Your task to perform on an android device: Toggle the flashlight Image 0: 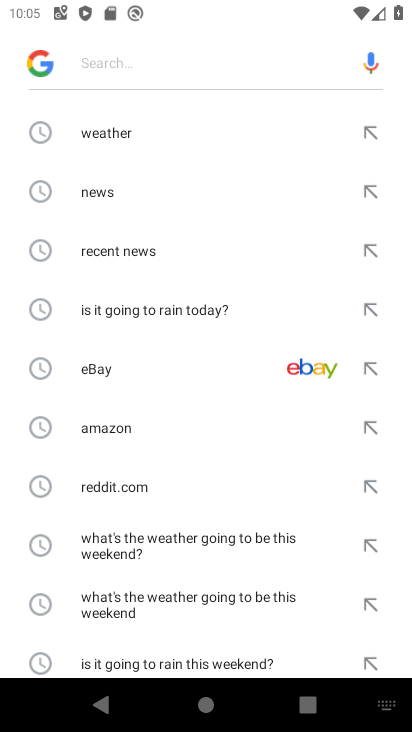
Step 0: press back button
Your task to perform on an android device: Toggle the flashlight Image 1: 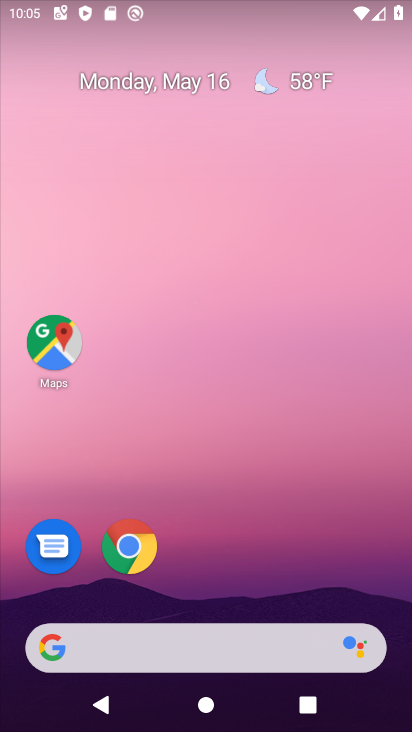
Step 1: drag from (259, 592) to (194, 305)
Your task to perform on an android device: Toggle the flashlight Image 2: 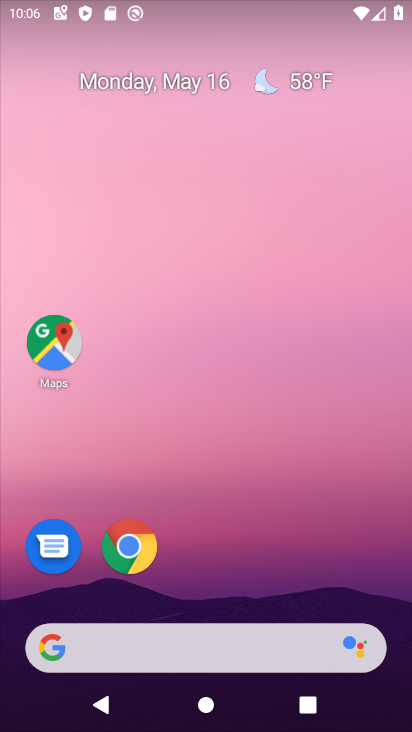
Step 2: drag from (238, 545) to (267, 117)
Your task to perform on an android device: Toggle the flashlight Image 3: 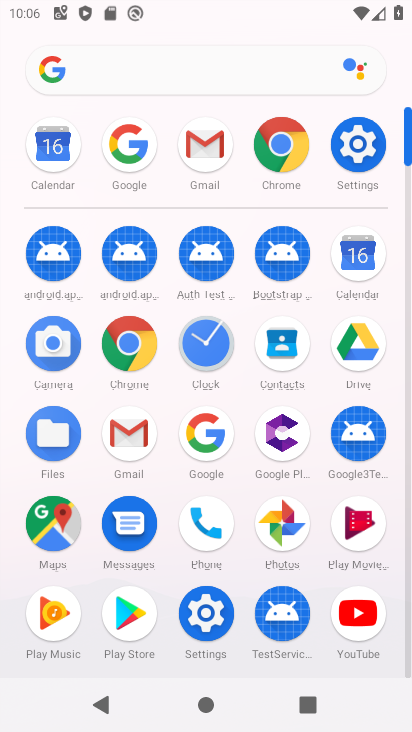
Step 3: click (358, 143)
Your task to perform on an android device: Toggle the flashlight Image 4: 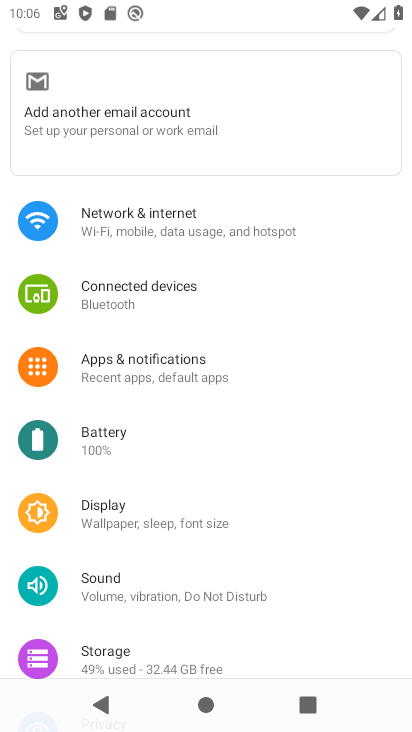
Step 4: click (147, 516)
Your task to perform on an android device: Toggle the flashlight Image 5: 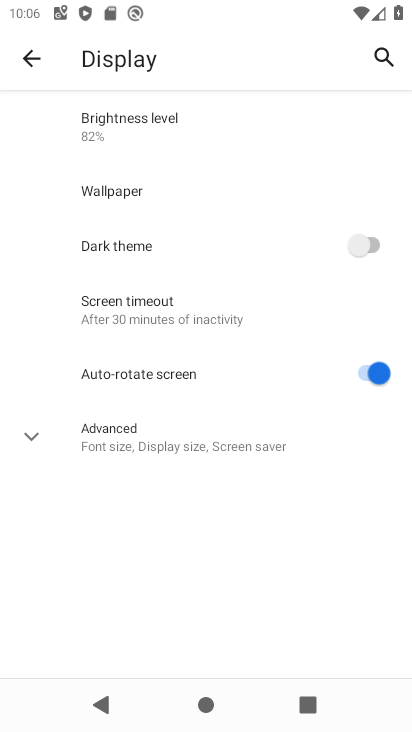
Step 5: click (167, 449)
Your task to perform on an android device: Toggle the flashlight Image 6: 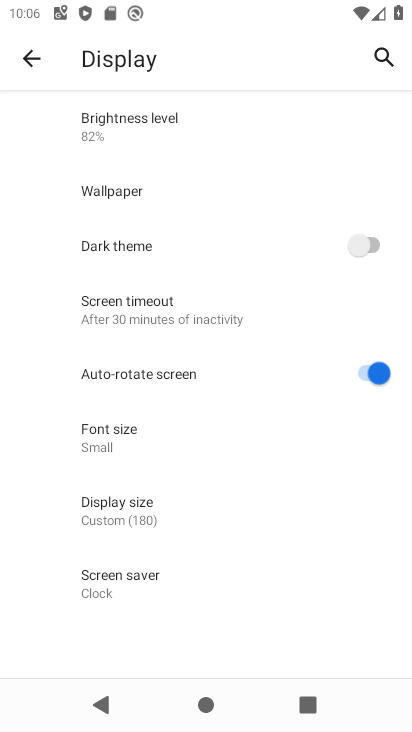
Step 6: drag from (163, 506) to (170, 393)
Your task to perform on an android device: Toggle the flashlight Image 7: 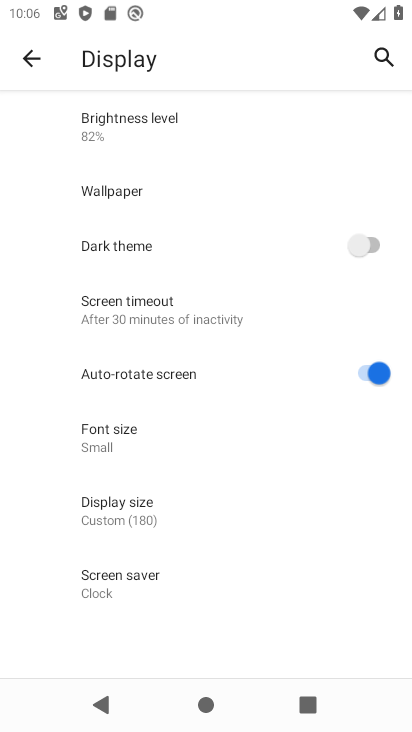
Step 7: press back button
Your task to perform on an android device: Toggle the flashlight Image 8: 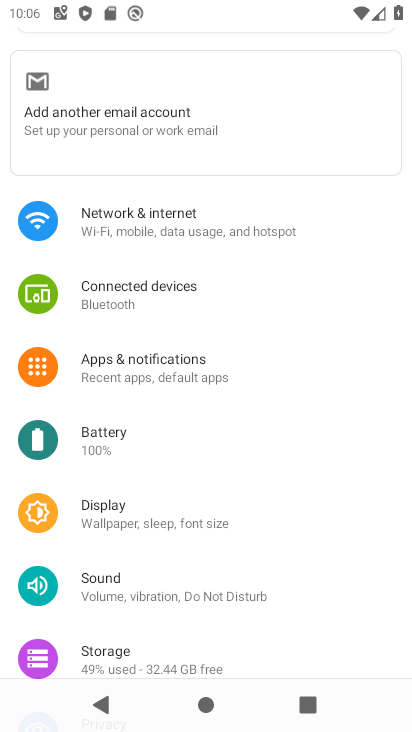
Step 8: drag from (174, 471) to (241, 396)
Your task to perform on an android device: Toggle the flashlight Image 9: 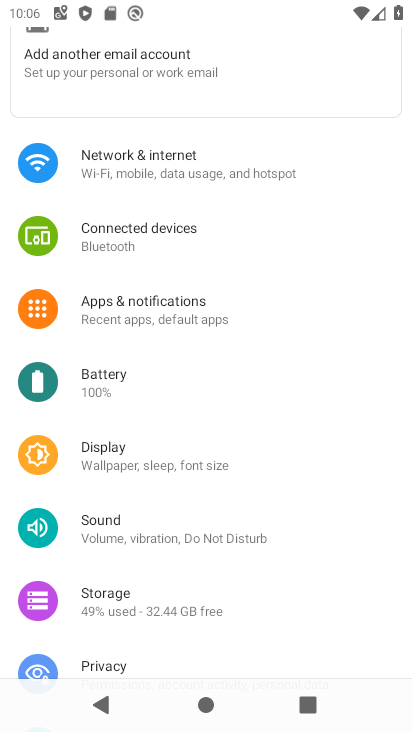
Step 9: click (185, 535)
Your task to perform on an android device: Toggle the flashlight Image 10: 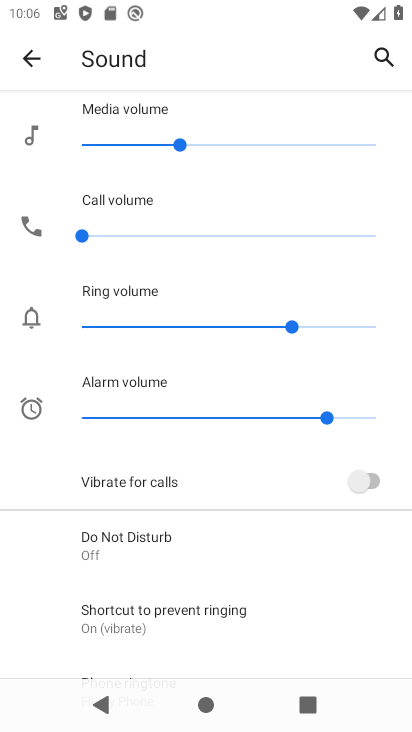
Step 10: drag from (180, 556) to (241, 414)
Your task to perform on an android device: Toggle the flashlight Image 11: 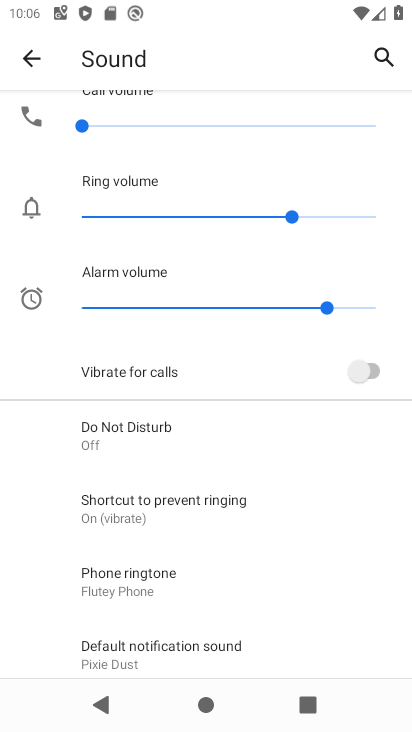
Step 11: drag from (195, 543) to (250, 438)
Your task to perform on an android device: Toggle the flashlight Image 12: 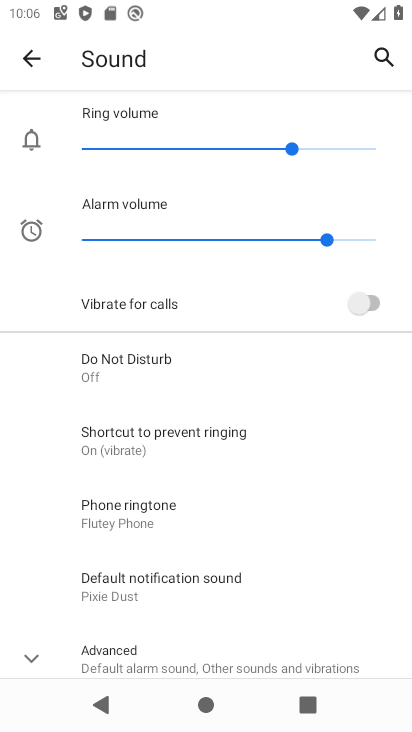
Step 12: drag from (249, 530) to (284, 406)
Your task to perform on an android device: Toggle the flashlight Image 13: 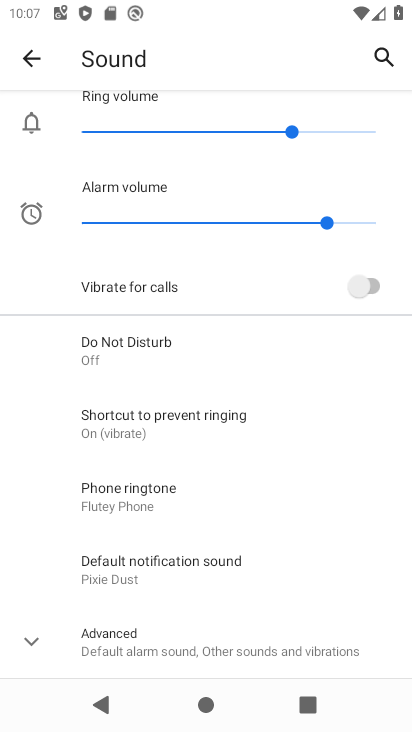
Step 13: click (171, 647)
Your task to perform on an android device: Toggle the flashlight Image 14: 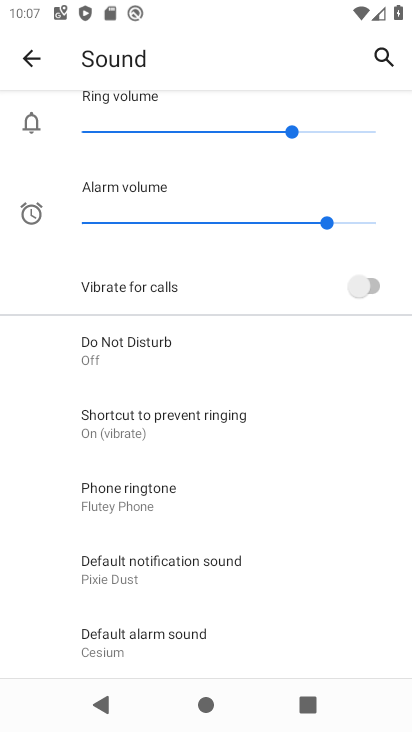
Step 14: task complete